Your task to perform on an android device: Open the clock Image 0: 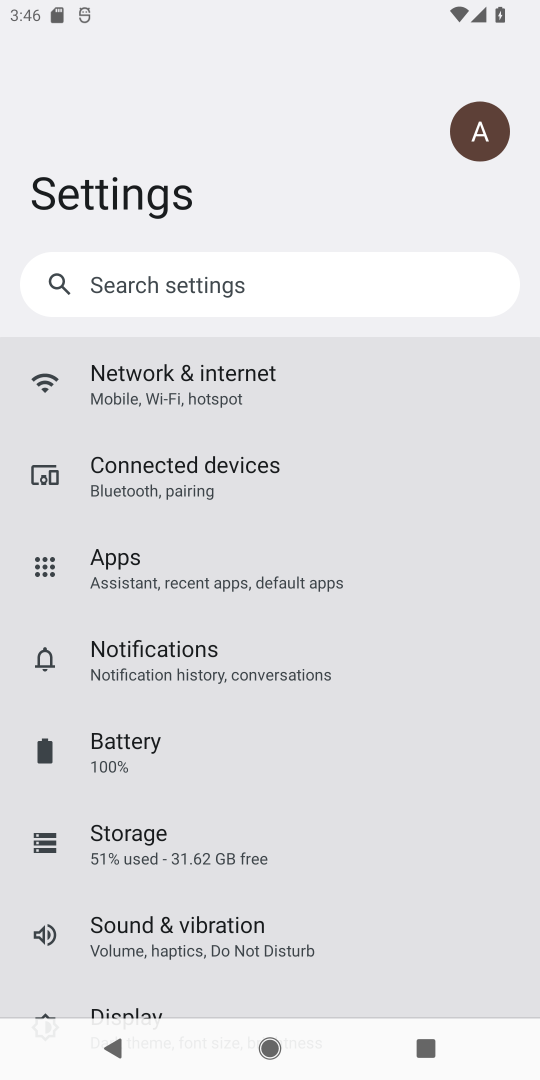
Step 0: press home button
Your task to perform on an android device: Open the clock Image 1: 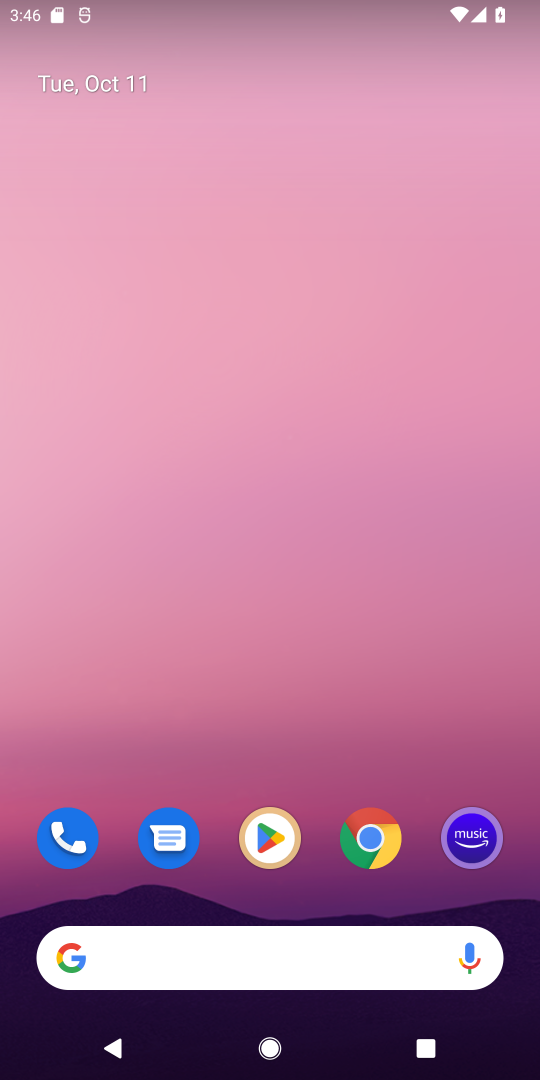
Step 1: drag from (317, 743) to (368, 350)
Your task to perform on an android device: Open the clock Image 2: 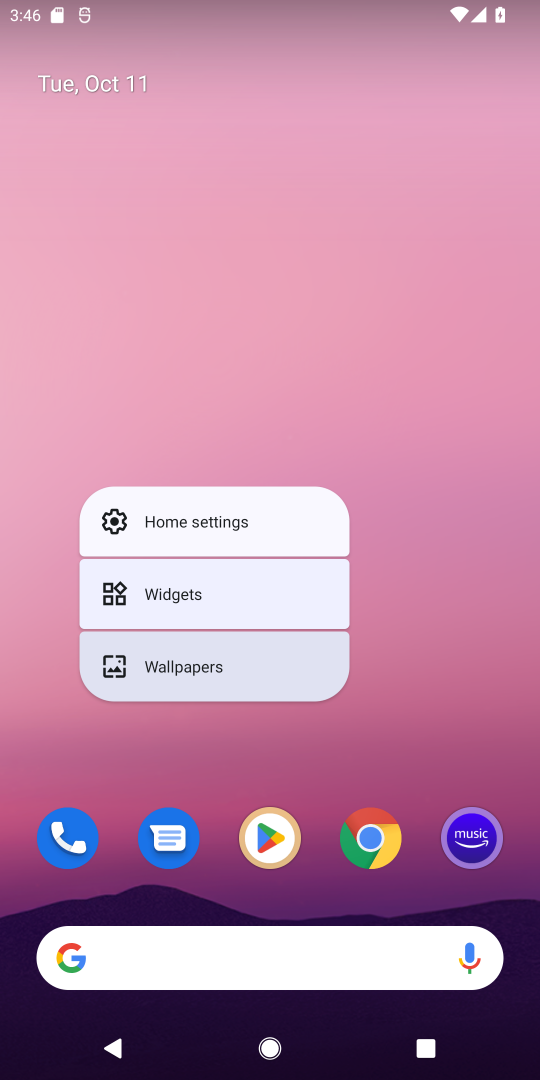
Step 2: drag from (354, 764) to (461, 440)
Your task to perform on an android device: Open the clock Image 3: 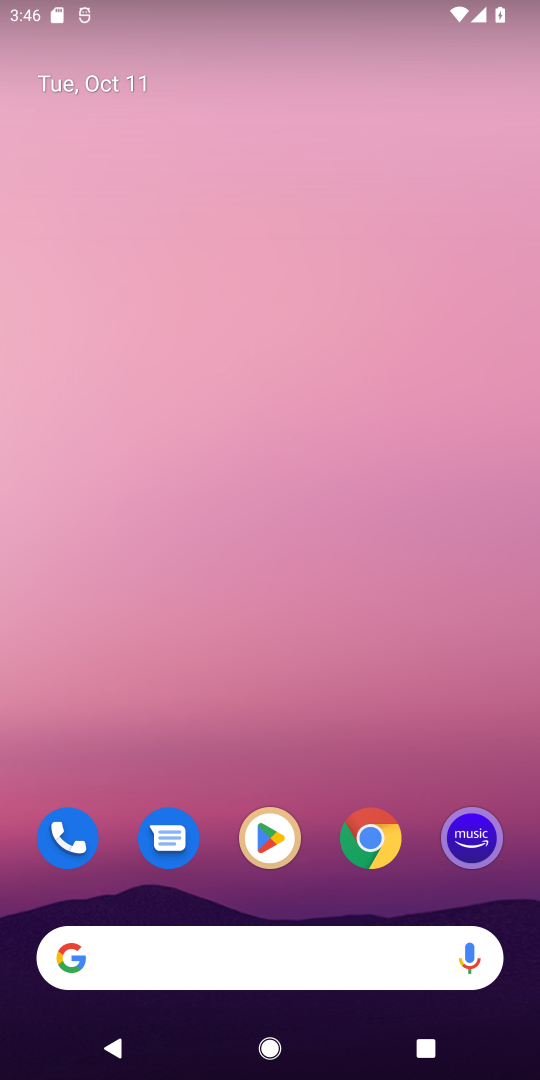
Step 3: drag from (260, 602) to (271, 213)
Your task to perform on an android device: Open the clock Image 4: 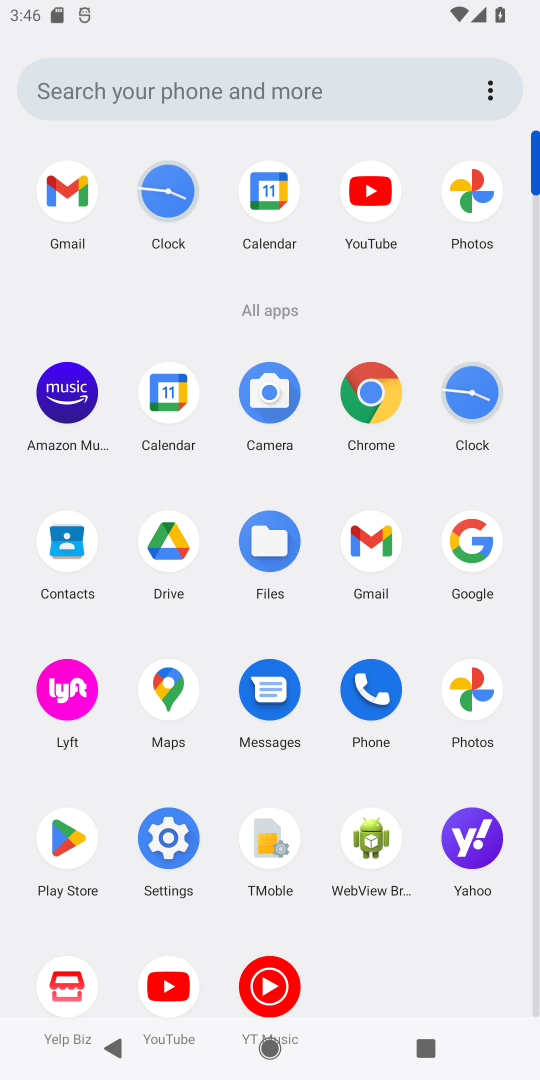
Step 4: click (460, 401)
Your task to perform on an android device: Open the clock Image 5: 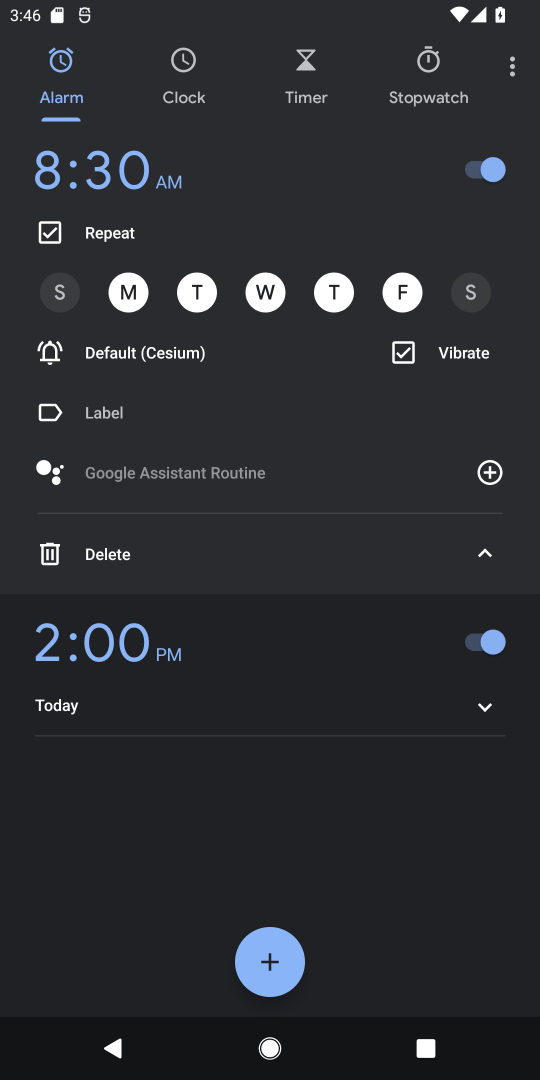
Step 5: click (161, 70)
Your task to perform on an android device: Open the clock Image 6: 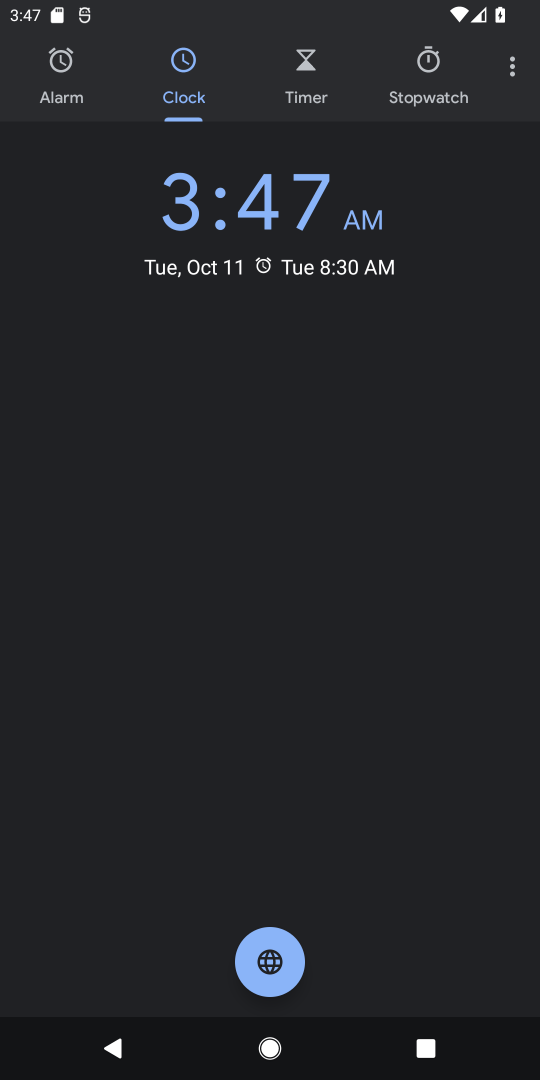
Step 6: task complete